Your task to perform on an android device: open chrome privacy settings Image 0: 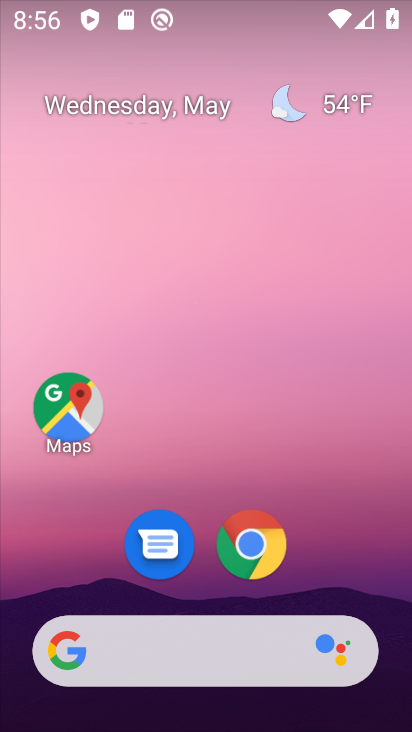
Step 0: click (243, 562)
Your task to perform on an android device: open chrome privacy settings Image 1: 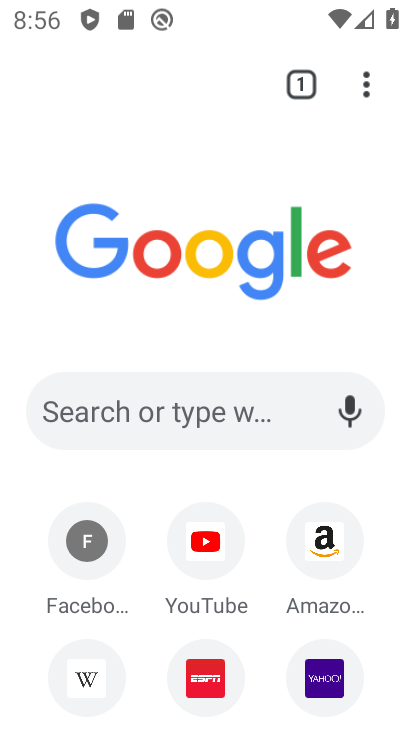
Step 1: click (381, 80)
Your task to perform on an android device: open chrome privacy settings Image 2: 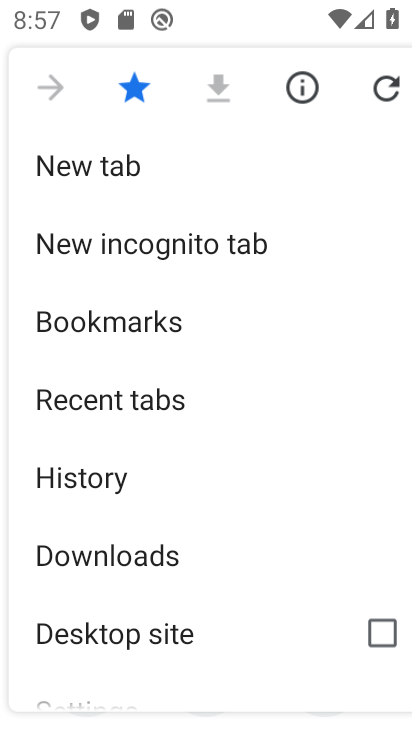
Step 2: drag from (202, 622) to (264, 233)
Your task to perform on an android device: open chrome privacy settings Image 3: 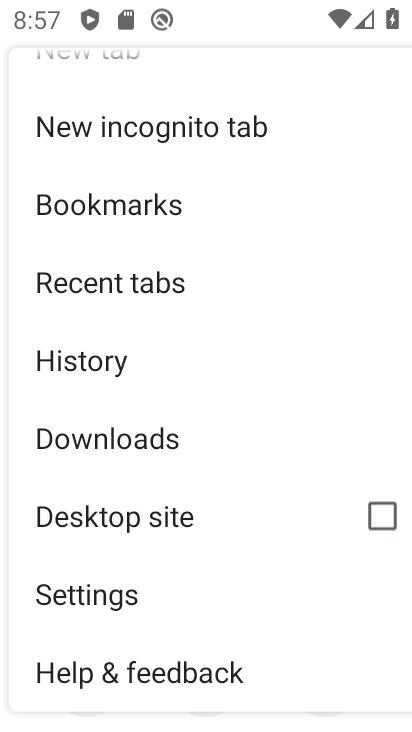
Step 3: click (107, 614)
Your task to perform on an android device: open chrome privacy settings Image 4: 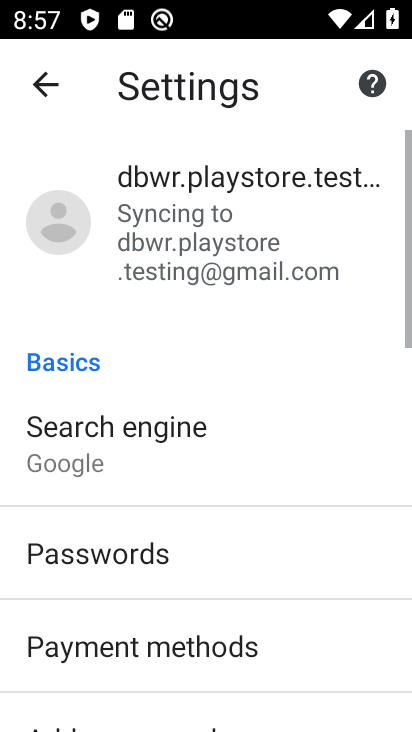
Step 4: drag from (107, 614) to (223, 116)
Your task to perform on an android device: open chrome privacy settings Image 5: 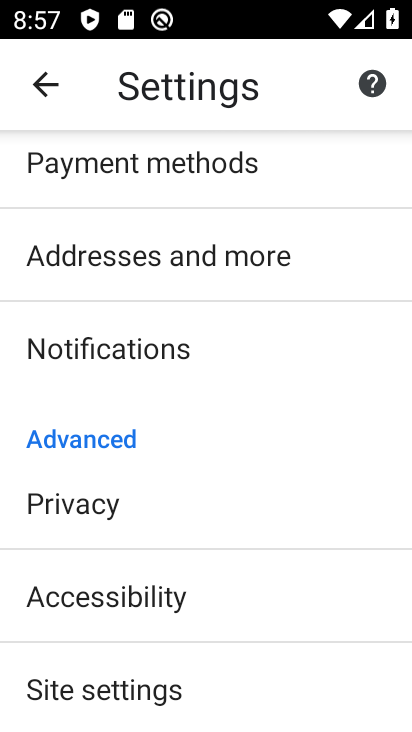
Step 5: click (107, 535)
Your task to perform on an android device: open chrome privacy settings Image 6: 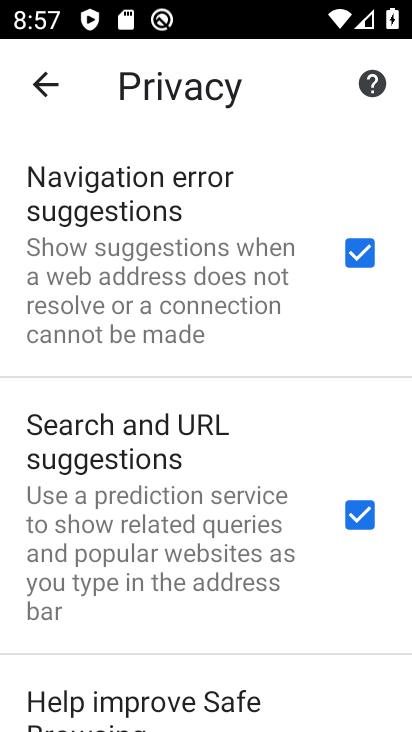
Step 6: task complete